Your task to perform on an android device: What's the weather today? Image 0: 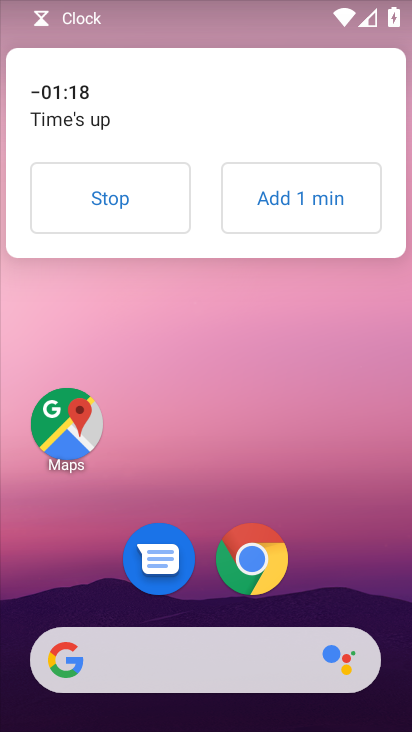
Step 0: click (113, 201)
Your task to perform on an android device: What's the weather today? Image 1: 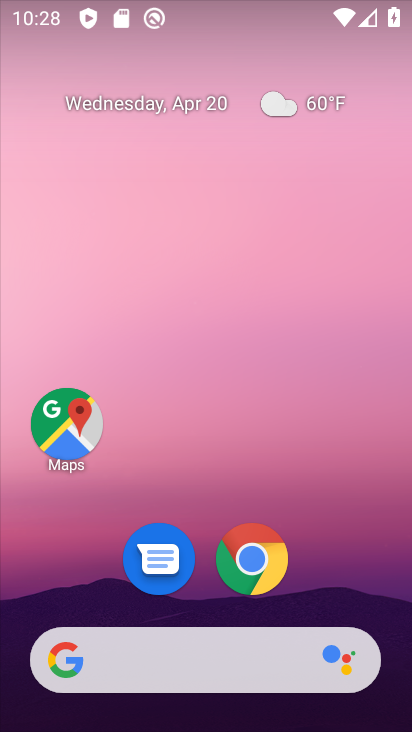
Step 1: click (266, 107)
Your task to perform on an android device: What's the weather today? Image 2: 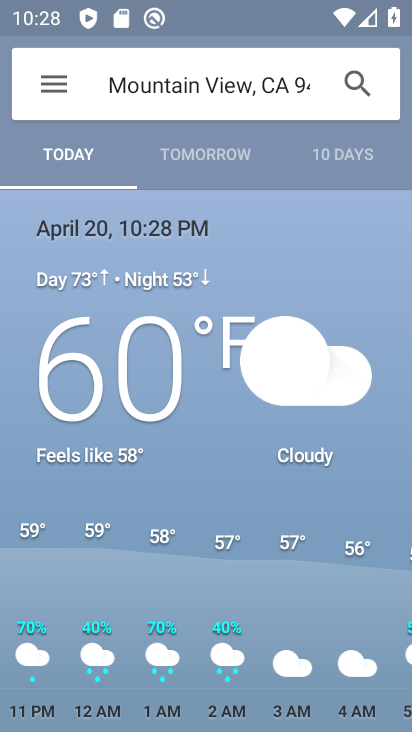
Step 2: task complete